Your task to perform on an android device: change the clock display to digital Image 0: 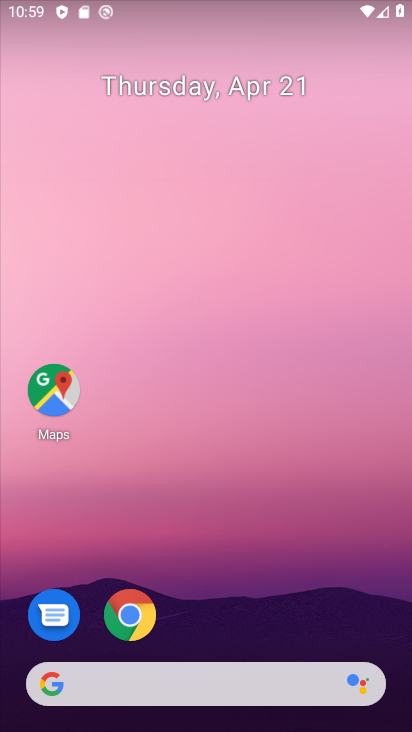
Step 0: drag from (264, 662) to (137, 107)
Your task to perform on an android device: change the clock display to digital Image 1: 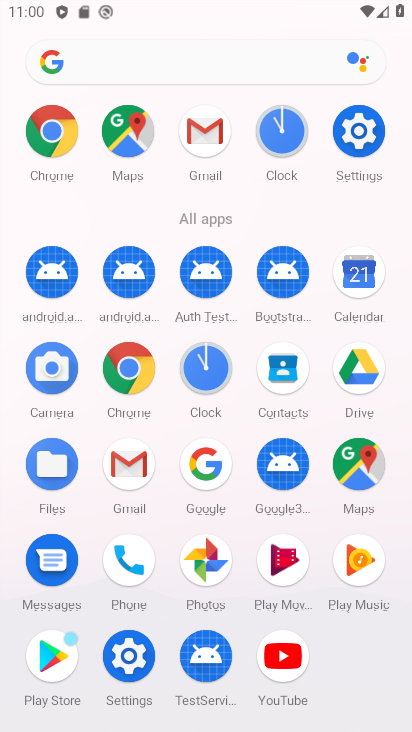
Step 1: click (201, 381)
Your task to perform on an android device: change the clock display to digital Image 2: 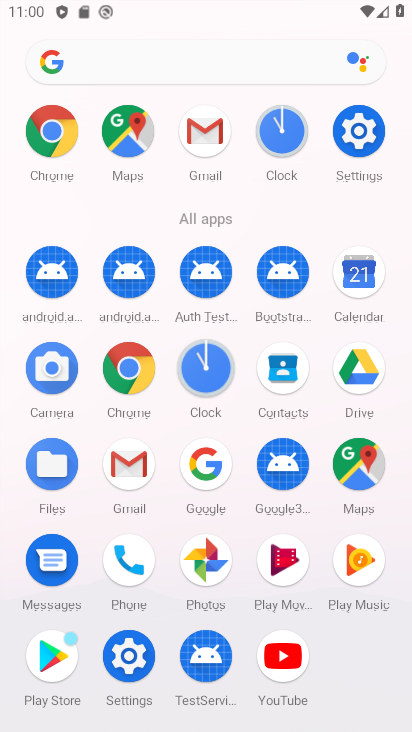
Step 2: click (212, 359)
Your task to perform on an android device: change the clock display to digital Image 3: 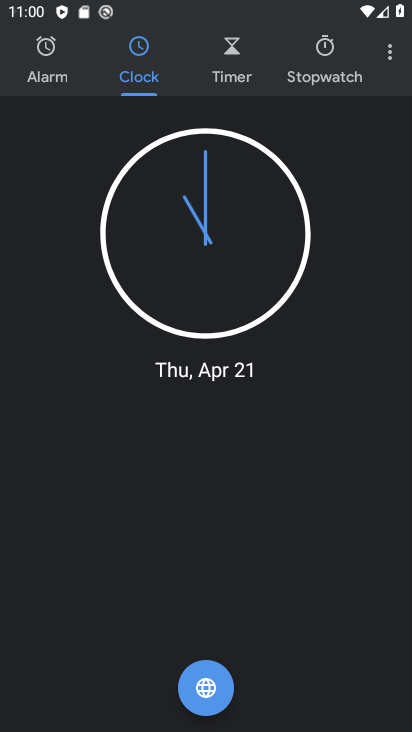
Step 3: click (212, 359)
Your task to perform on an android device: change the clock display to digital Image 4: 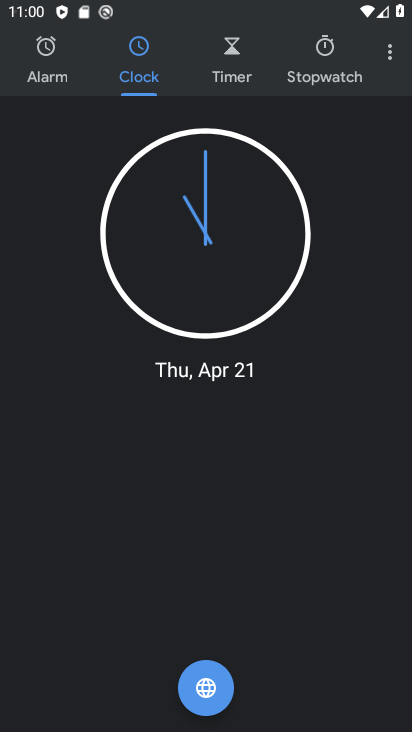
Step 4: click (391, 56)
Your task to perform on an android device: change the clock display to digital Image 5: 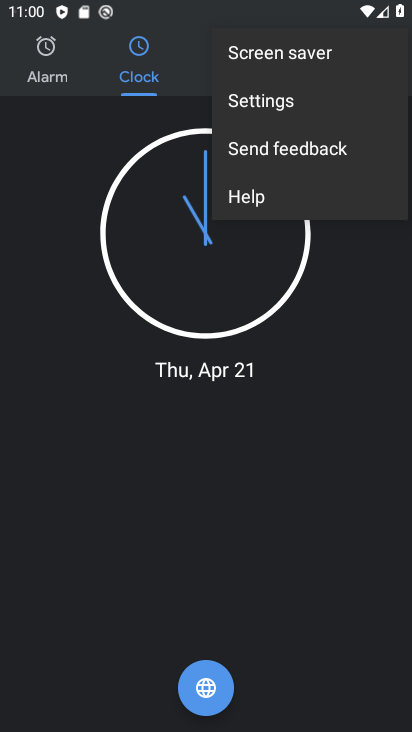
Step 5: click (290, 103)
Your task to perform on an android device: change the clock display to digital Image 6: 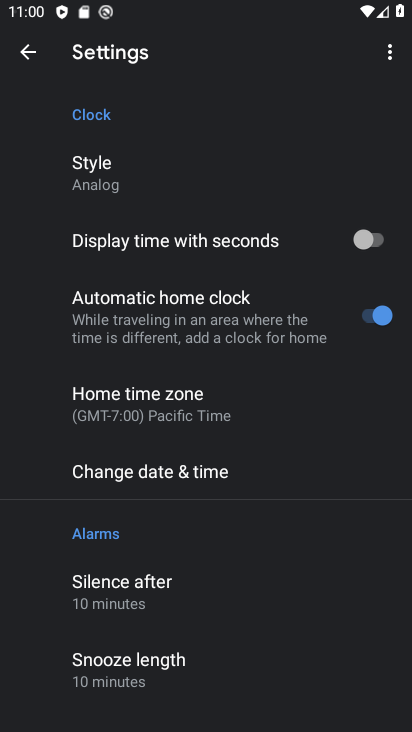
Step 6: click (141, 175)
Your task to perform on an android device: change the clock display to digital Image 7: 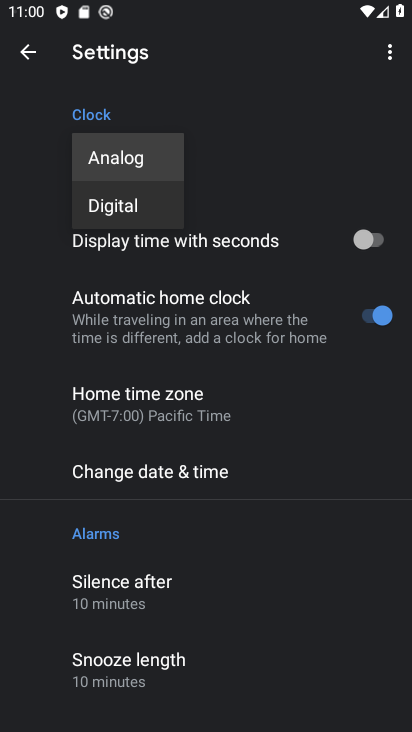
Step 7: click (129, 154)
Your task to perform on an android device: change the clock display to digital Image 8: 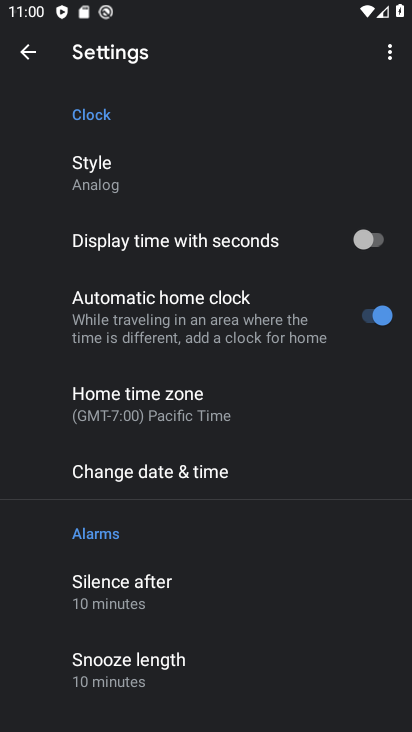
Step 8: task complete